Your task to perform on an android device: Go to Maps Image 0: 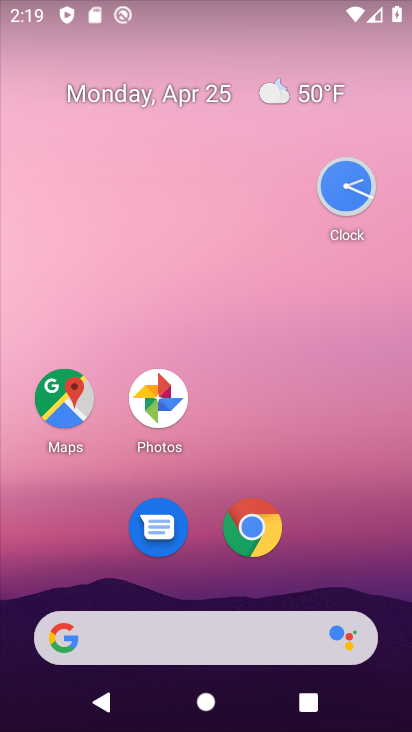
Step 0: click (38, 389)
Your task to perform on an android device: Go to Maps Image 1: 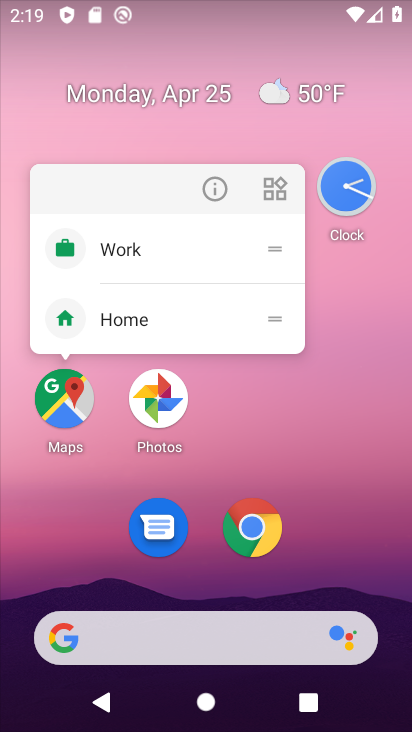
Step 1: click (65, 416)
Your task to perform on an android device: Go to Maps Image 2: 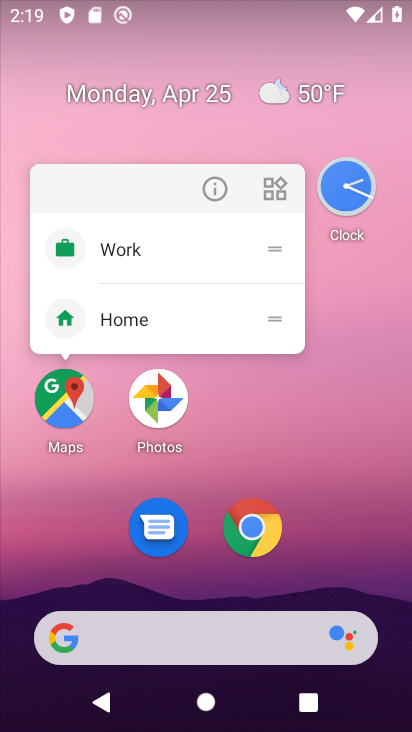
Step 2: click (64, 416)
Your task to perform on an android device: Go to Maps Image 3: 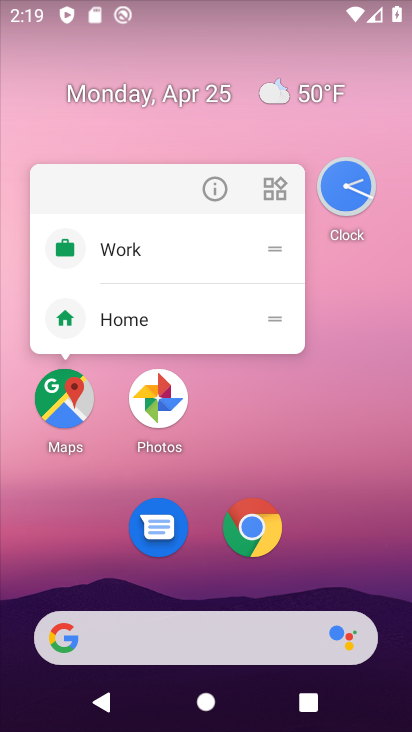
Step 3: click (69, 392)
Your task to perform on an android device: Go to Maps Image 4: 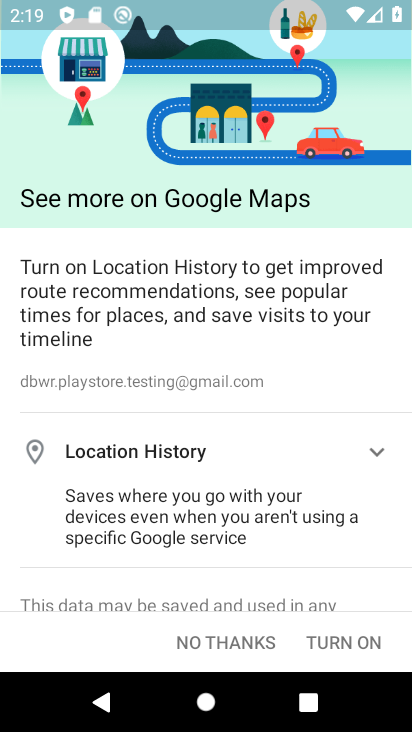
Step 4: click (209, 650)
Your task to perform on an android device: Go to Maps Image 5: 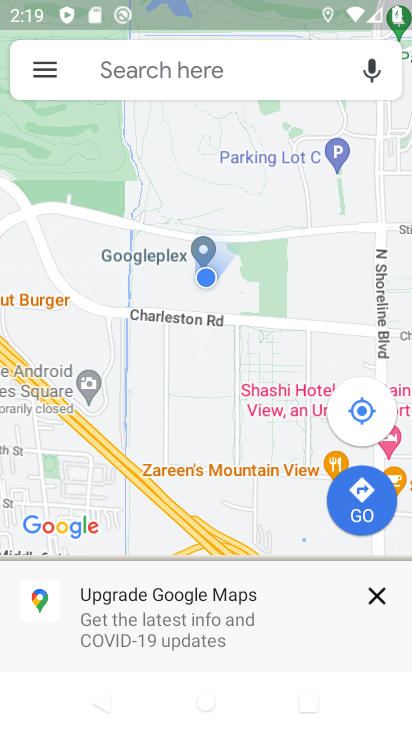
Step 5: task complete